Your task to perform on an android device: Nike Air Max 2020 shoes on Nike.com Image 0: 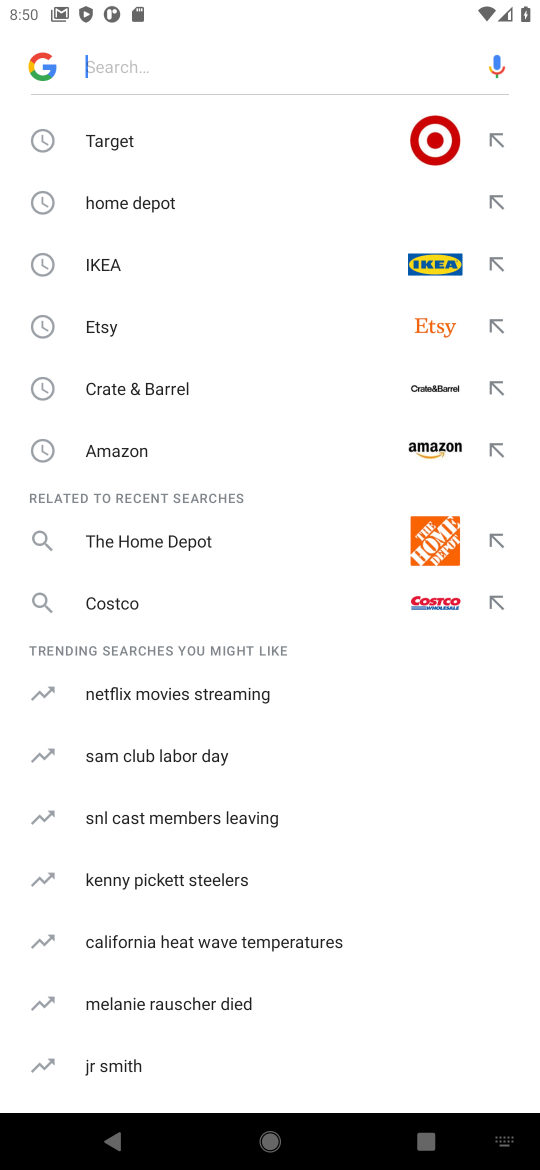
Step 0: type "nike.com"
Your task to perform on an android device: Nike Air Max 2020 shoes on Nike.com Image 1: 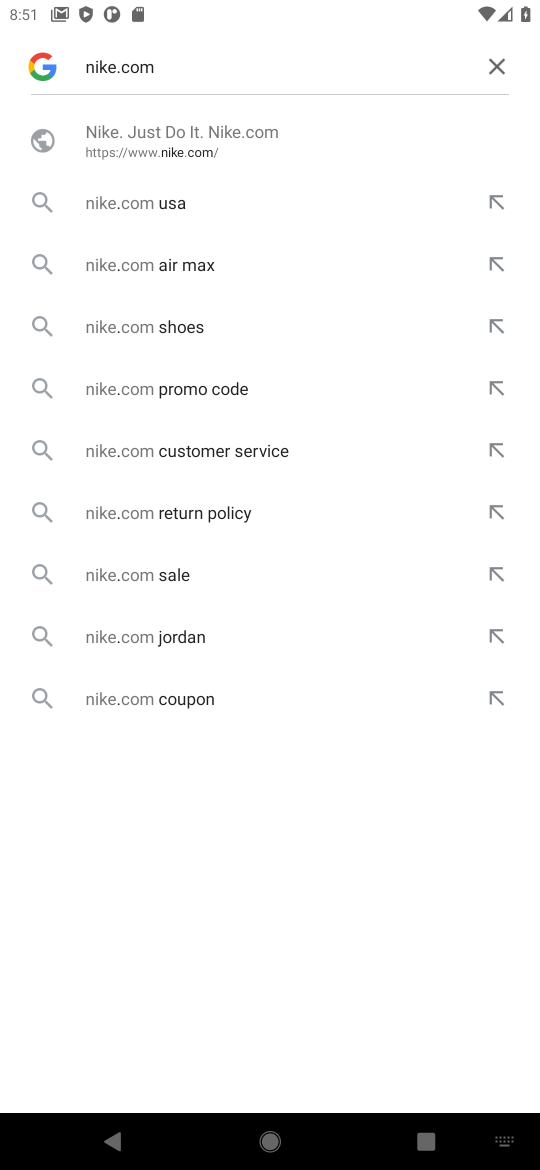
Step 1: click (140, 133)
Your task to perform on an android device: Nike Air Max 2020 shoes on Nike.com Image 2: 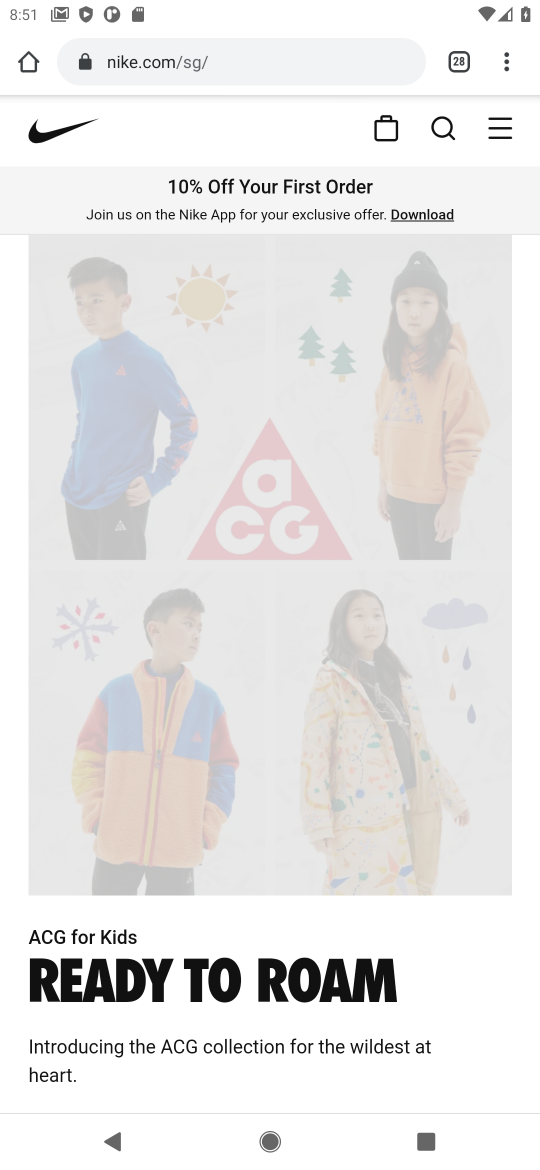
Step 2: click (436, 133)
Your task to perform on an android device: Nike Air Max 2020 shoes on Nike.com Image 3: 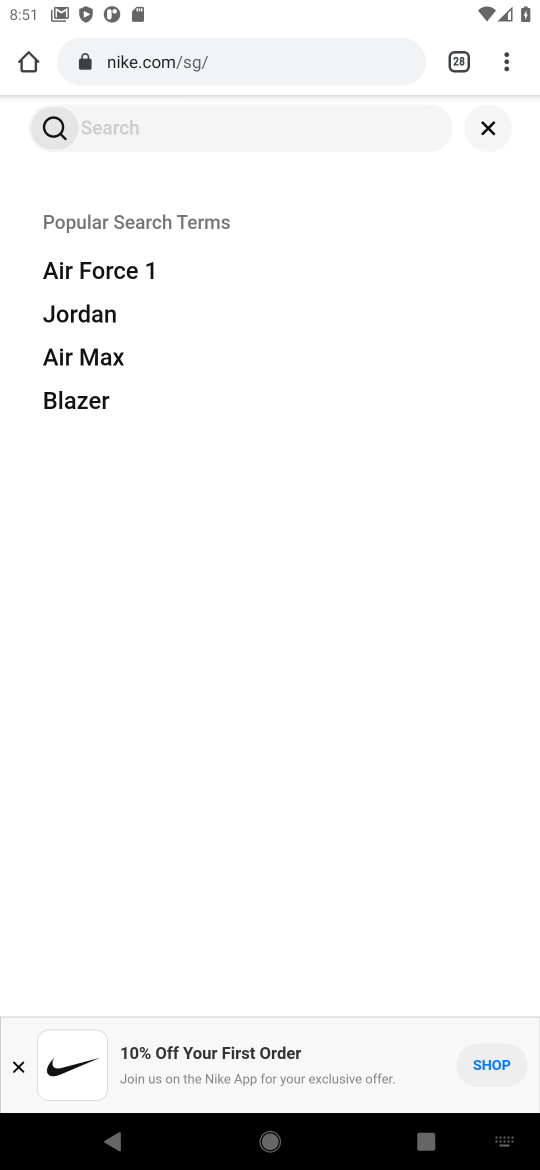
Step 3: type "air max 2020 shoes"
Your task to perform on an android device: Nike Air Max 2020 shoes on Nike.com Image 4: 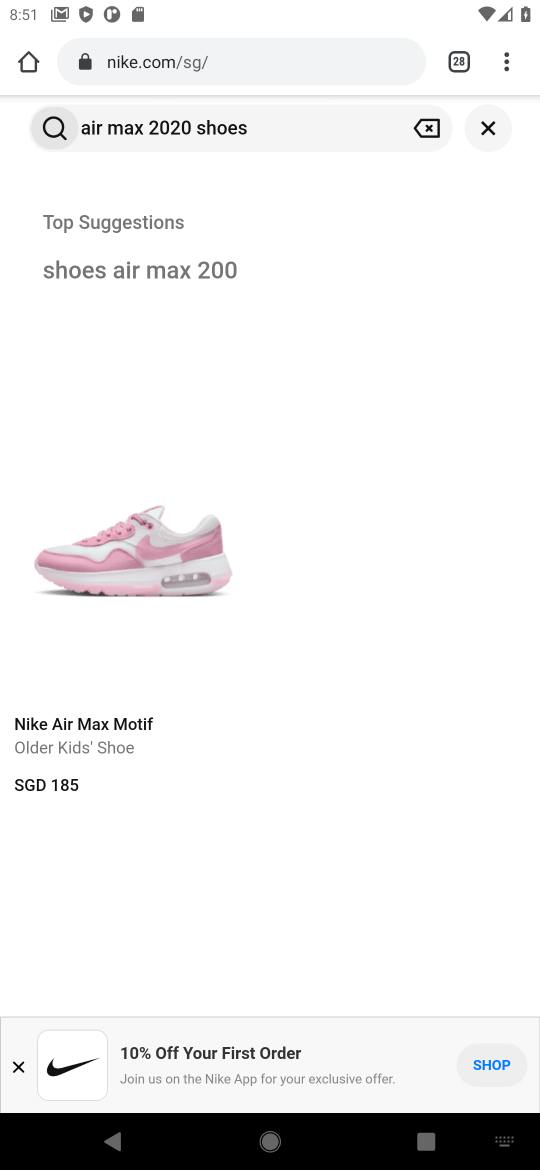
Step 4: task complete